Your task to perform on an android device: stop showing notifications on the lock screen Image 0: 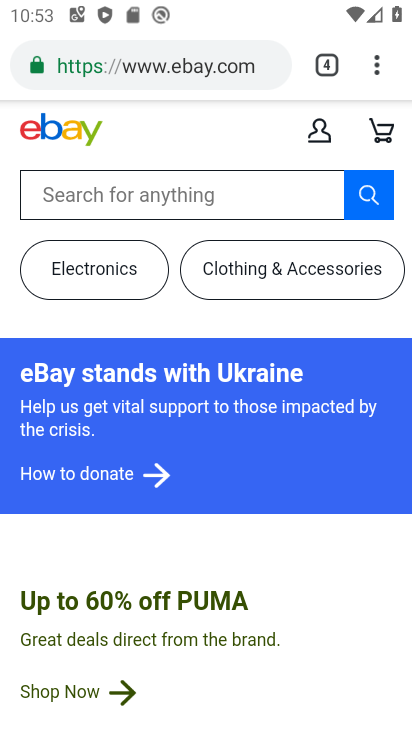
Step 0: press home button
Your task to perform on an android device: stop showing notifications on the lock screen Image 1: 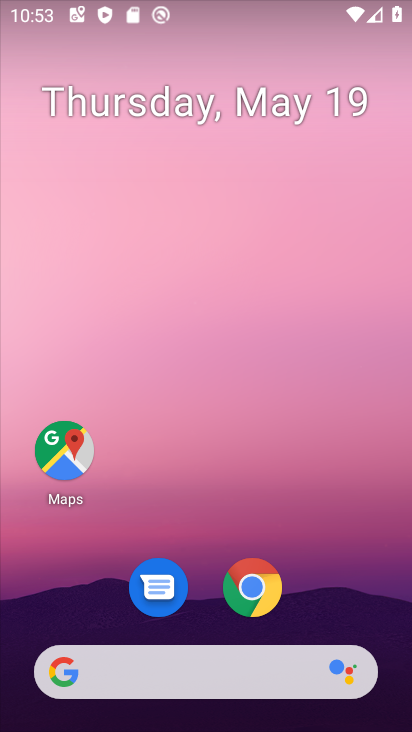
Step 1: drag from (220, 665) to (170, 112)
Your task to perform on an android device: stop showing notifications on the lock screen Image 2: 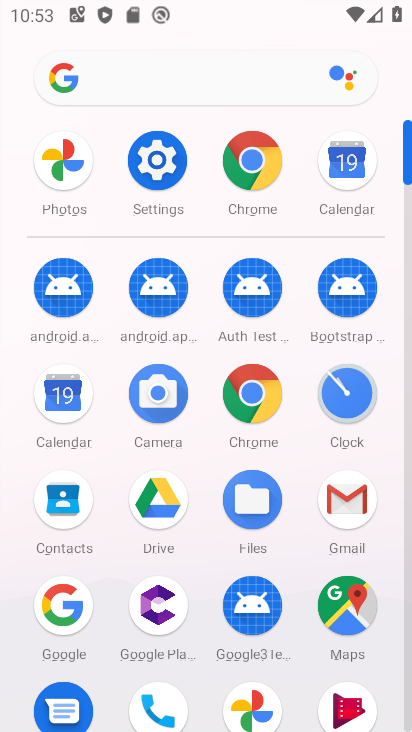
Step 2: click (163, 153)
Your task to perform on an android device: stop showing notifications on the lock screen Image 3: 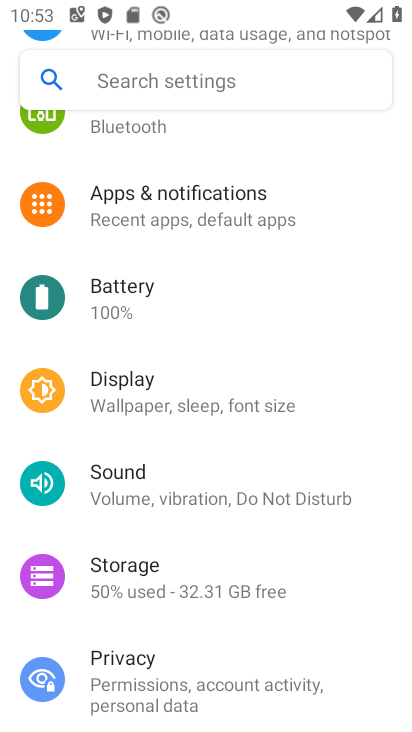
Step 3: click (141, 227)
Your task to perform on an android device: stop showing notifications on the lock screen Image 4: 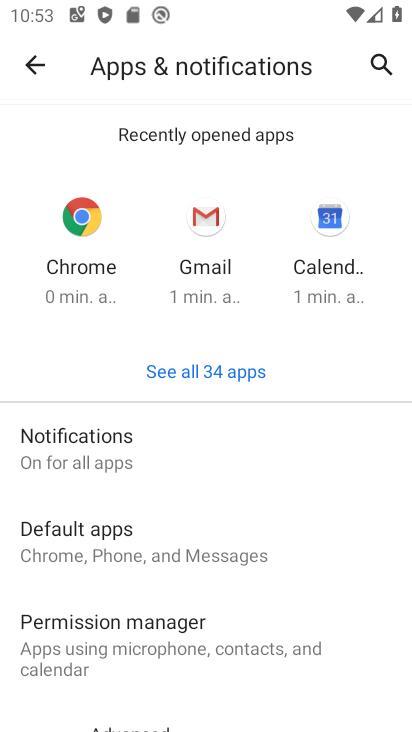
Step 4: click (107, 459)
Your task to perform on an android device: stop showing notifications on the lock screen Image 5: 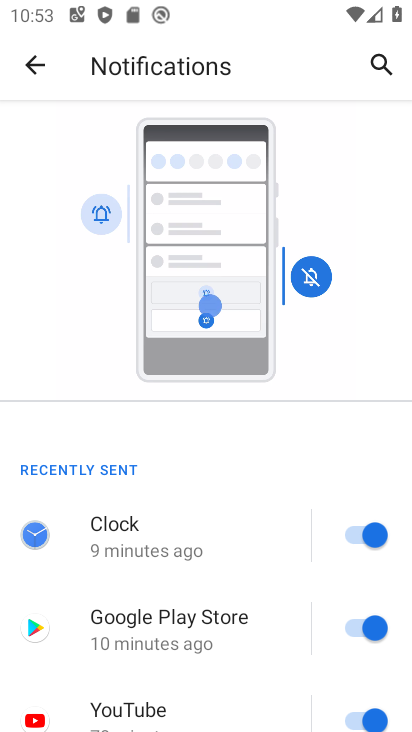
Step 5: drag from (158, 579) to (28, 35)
Your task to perform on an android device: stop showing notifications on the lock screen Image 6: 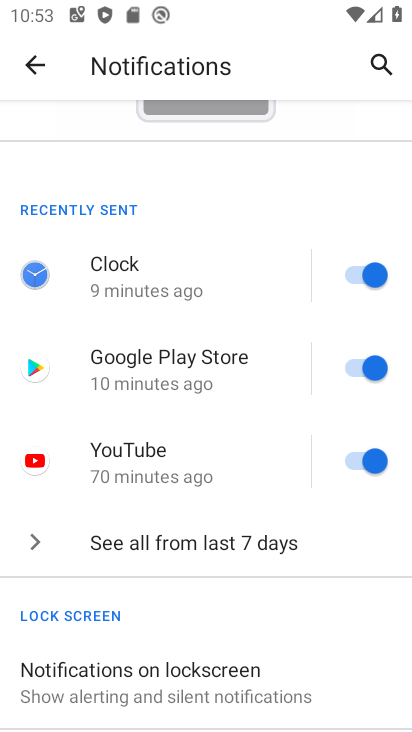
Step 6: click (188, 682)
Your task to perform on an android device: stop showing notifications on the lock screen Image 7: 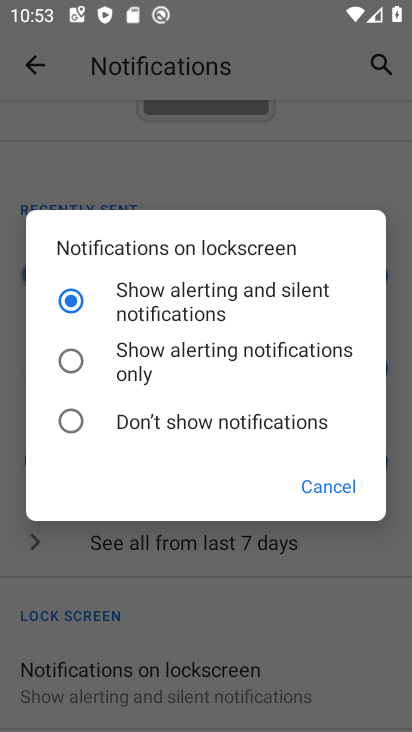
Step 7: click (119, 426)
Your task to perform on an android device: stop showing notifications on the lock screen Image 8: 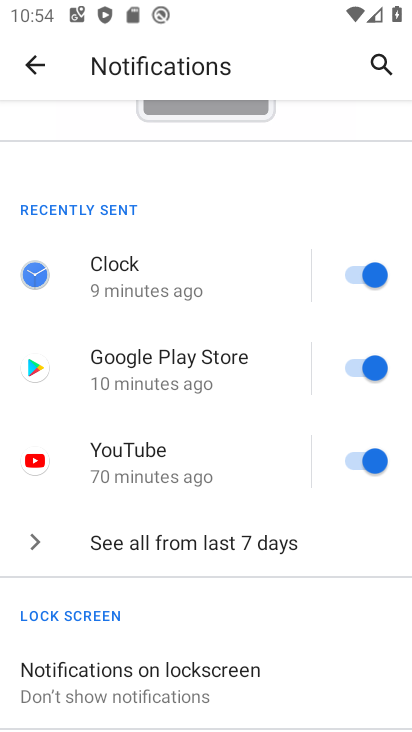
Step 8: task complete